Your task to perform on an android device: choose inbox layout in the gmail app Image 0: 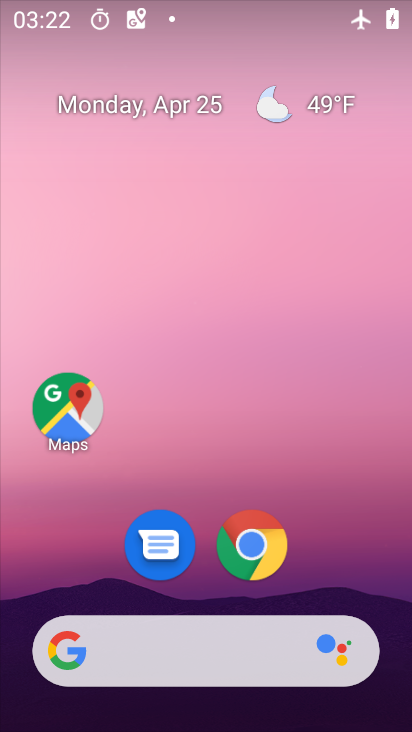
Step 0: drag from (208, 484) to (295, 6)
Your task to perform on an android device: choose inbox layout in the gmail app Image 1: 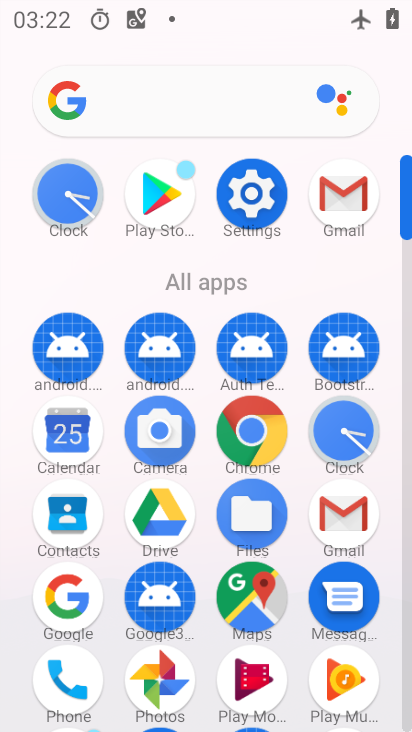
Step 1: click (341, 195)
Your task to perform on an android device: choose inbox layout in the gmail app Image 2: 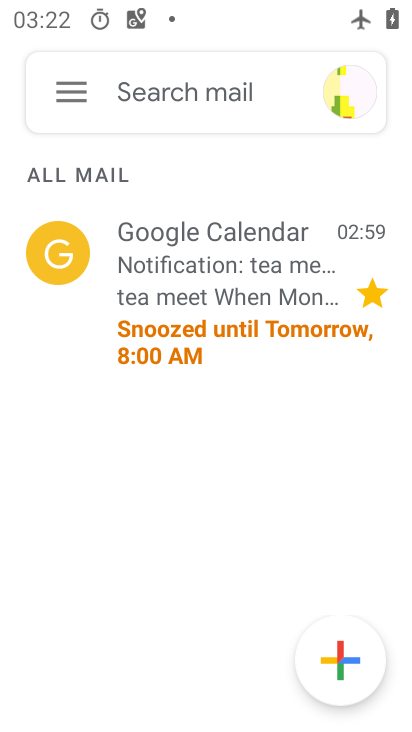
Step 2: click (65, 93)
Your task to perform on an android device: choose inbox layout in the gmail app Image 3: 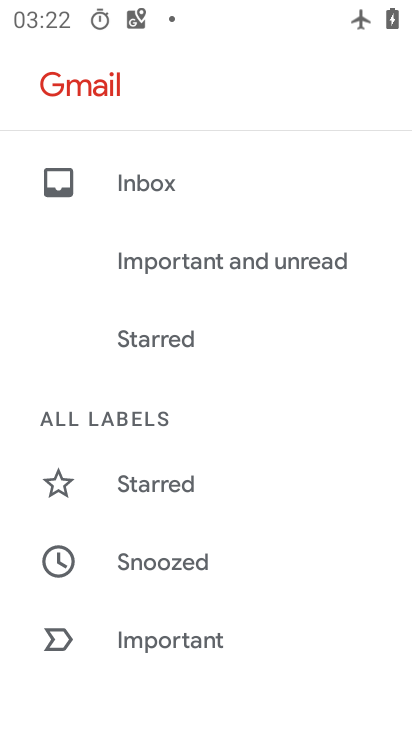
Step 3: drag from (150, 297) to (193, 228)
Your task to perform on an android device: choose inbox layout in the gmail app Image 4: 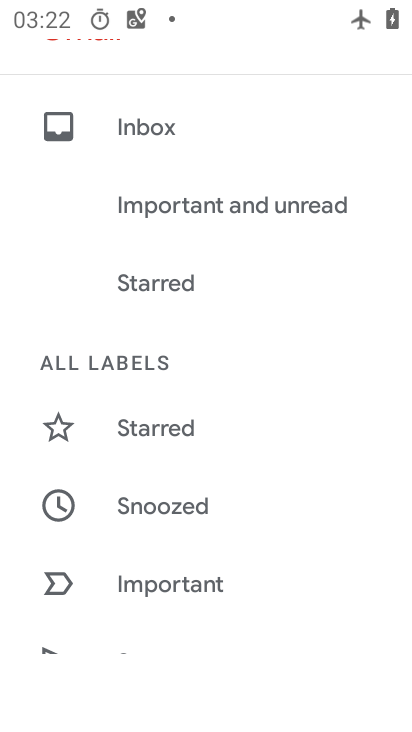
Step 4: drag from (195, 359) to (208, 274)
Your task to perform on an android device: choose inbox layout in the gmail app Image 5: 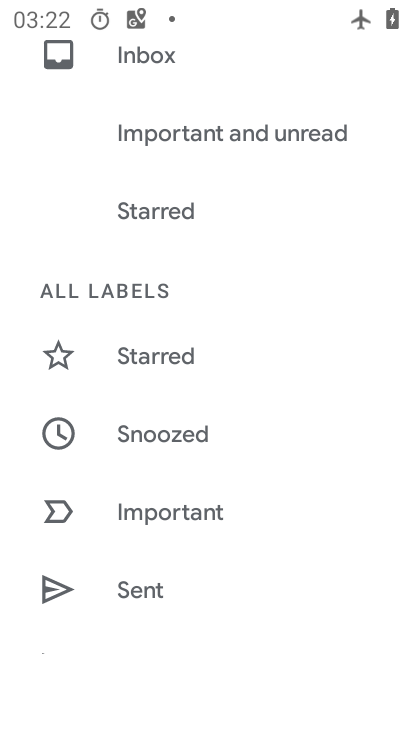
Step 5: drag from (171, 396) to (211, 322)
Your task to perform on an android device: choose inbox layout in the gmail app Image 6: 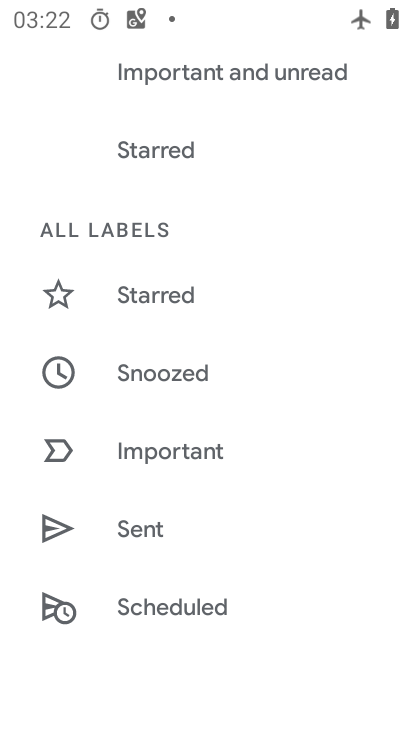
Step 6: drag from (166, 419) to (215, 338)
Your task to perform on an android device: choose inbox layout in the gmail app Image 7: 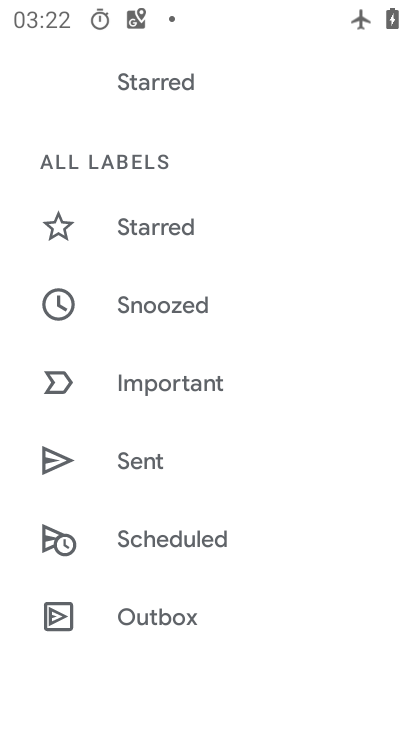
Step 7: drag from (169, 432) to (228, 344)
Your task to perform on an android device: choose inbox layout in the gmail app Image 8: 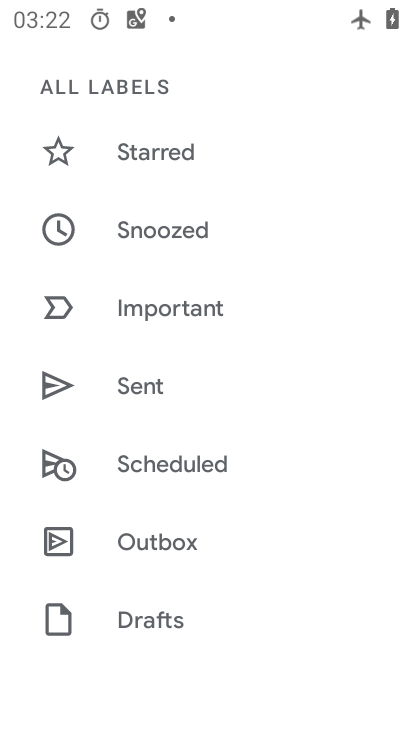
Step 8: drag from (171, 442) to (237, 328)
Your task to perform on an android device: choose inbox layout in the gmail app Image 9: 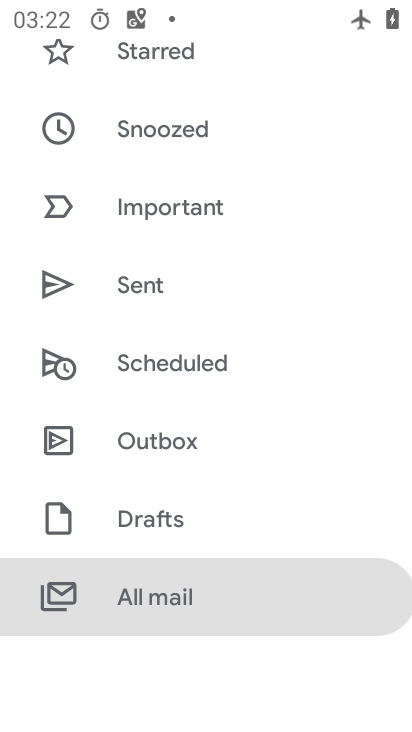
Step 9: drag from (144, 466) to (216, 373)
Your task to perform on an android device: choose inbox layout in the gmail app Image 10: 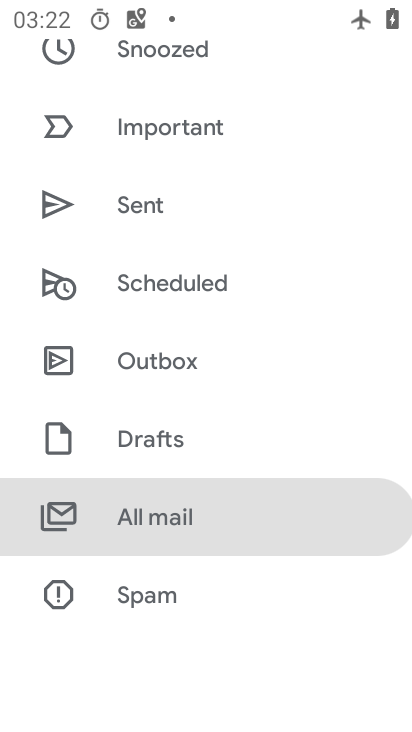
Step 10: drag from (157, 411) to (223, 321)
Your task to perform on an android device: choose inbox layout in the gmail app Image 11: 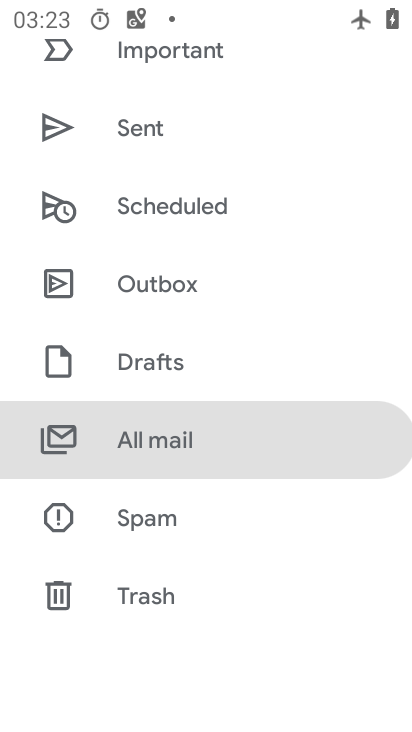
Step 11: drag from (146, 497) to (233, 361)
Your task to perform on an android device: choose inbox layout in the gmail app Image 12: 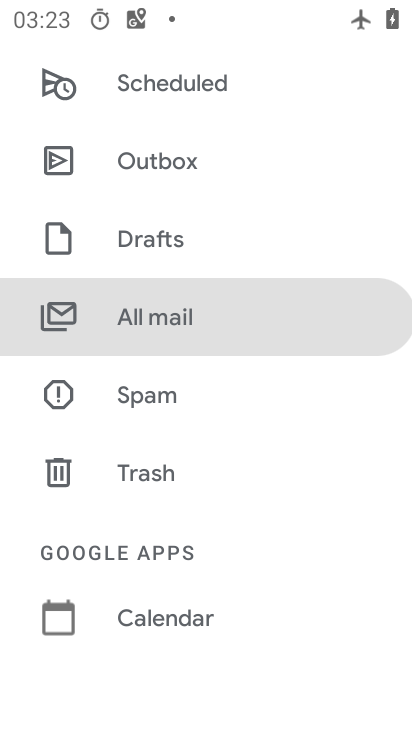
Step 12: drag from (153, 454) to (226, 370)
Your task to perform on an android device: choose inbox layout in the gmail app Image 13: 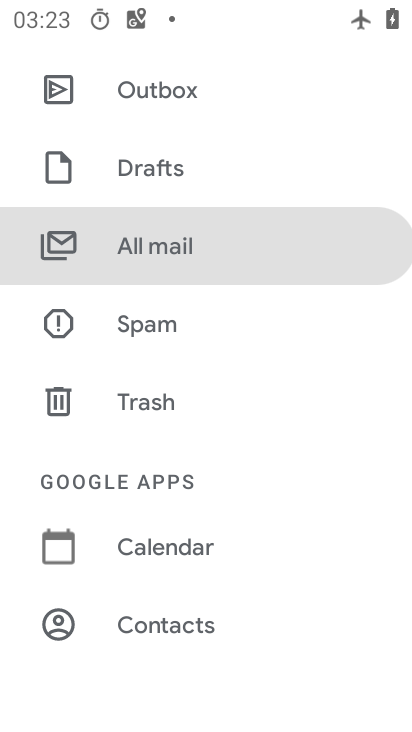
Step 13: drag from (153, 520) to (251, 404)
Your task to perform on an android device: choose inbox layout in the gmail app Image 14: 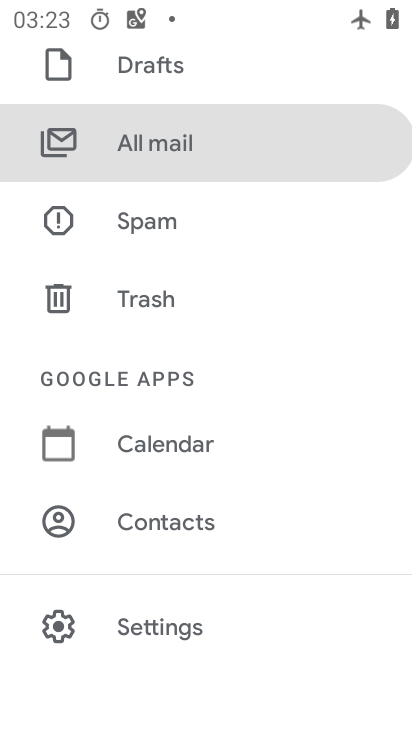
Step 14: drag from (141, 548) to (233, 425)
Your task to perform on an android device: choose inbox layout in the gmail app Image 15: 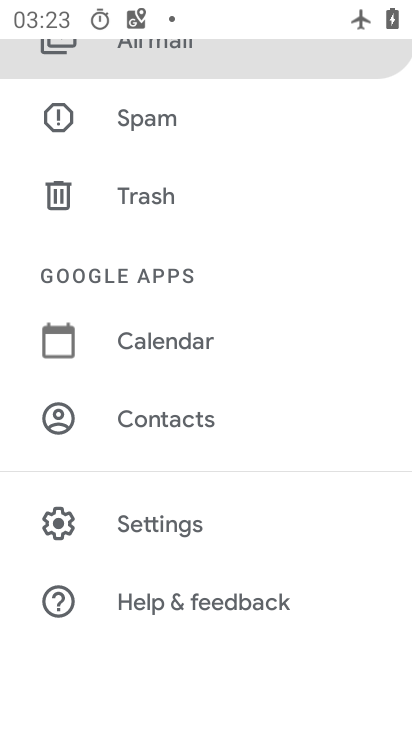
Step 15: click (150, 527)
Your task to perform on an android device: choose inbox layout in the gmail app Image 16: 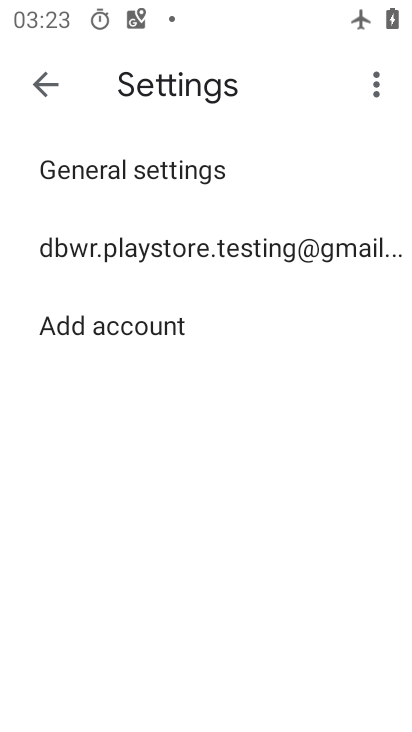
Step 16: click (211, 253)
Your task to perform on an android device: choose inbox layout in the gmail app Image 17: 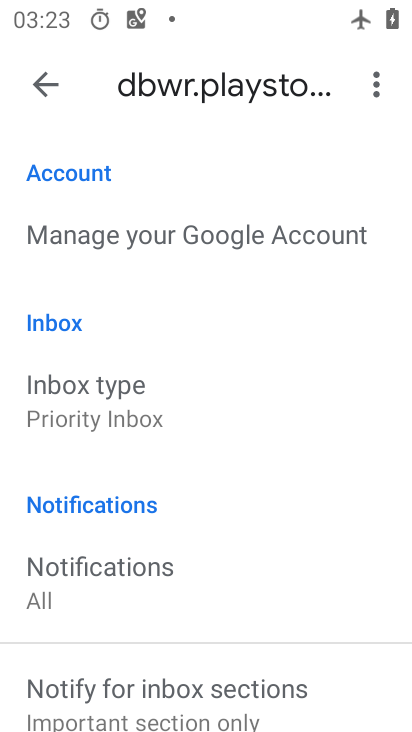
Step 17: click (97, 388)
Your task to perform on an android device: choose inbox layout in the gmail app Image 18: 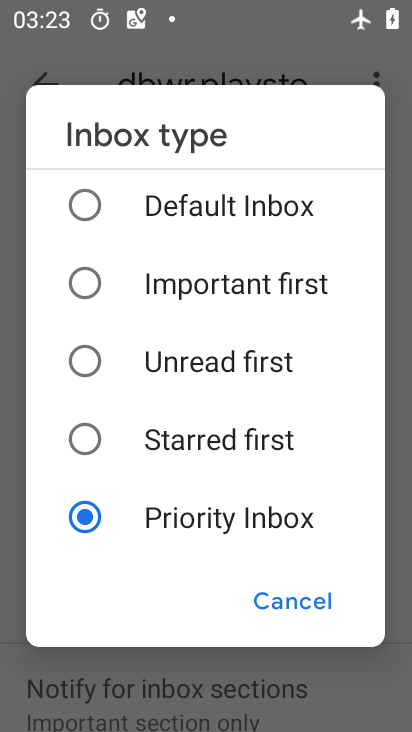
Step 18: click (88, 210)
Your task to perform on an android device: choose inbox layout in the gmail app Image 19: 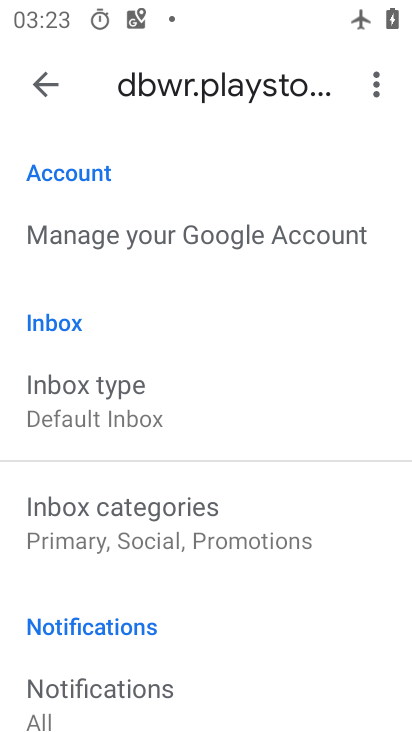
Step 19: task complete